Your task to perform on an android device: What's on my calendar tomorrow? Image 0: 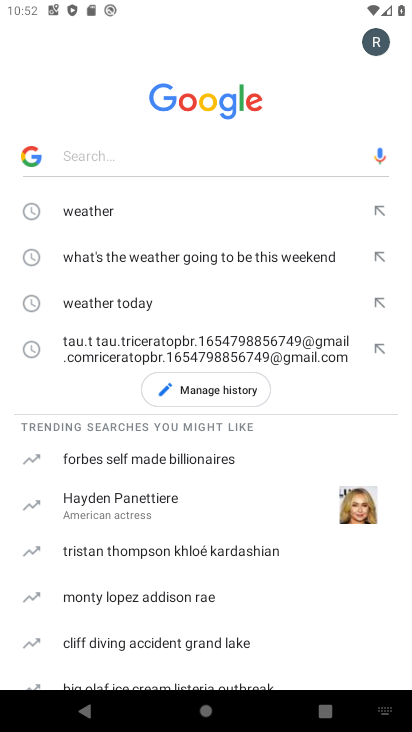
Step 0: press home button
Your task to perform on an android device: What's on my calendar tomorrow? Image 1: 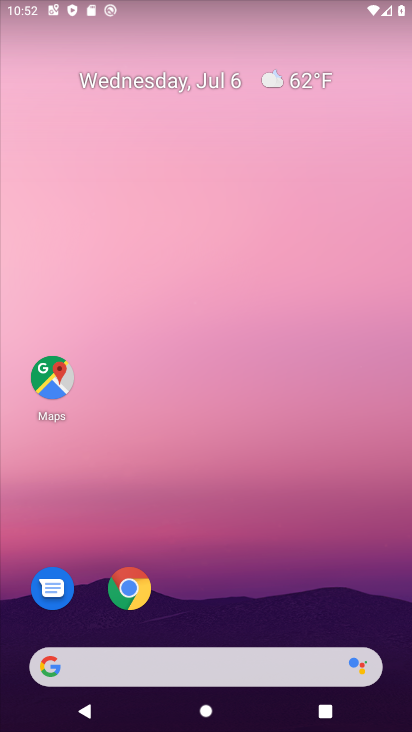
Step 1: drag from (369, 604) to (364, 87)
Your task to perform on an android device: What's on my calendar tomorrow? Image 2: 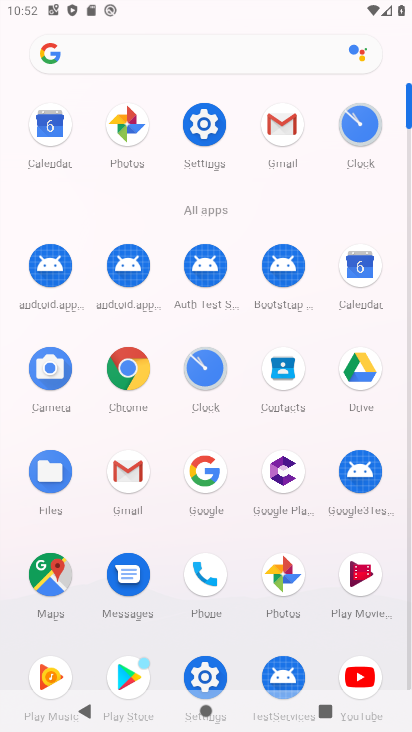
Step 2: click (360, 266)
Your task to perform on an android device: What's on my calendar tomorrow? Image 3: 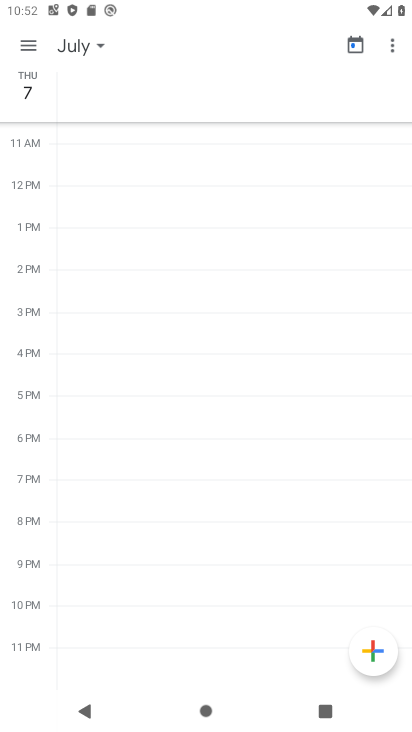
Step 3: task complete